Your task to perform on an android device: Open sound settings Image 0: 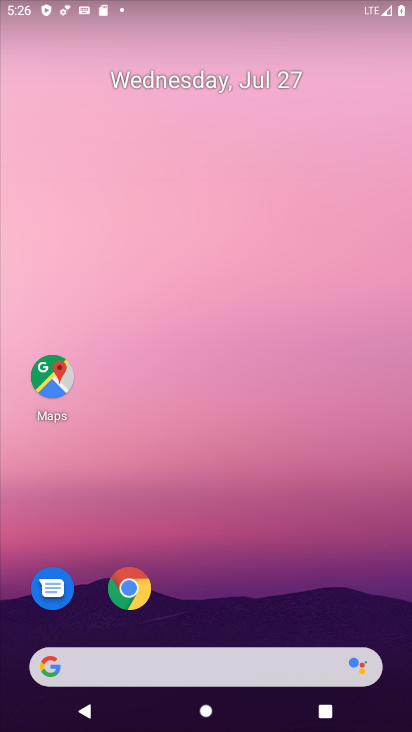
Step 0: drag from (312, 653) to (365, 7)
Your task to perform on an android device: Open sound settings Image 1: 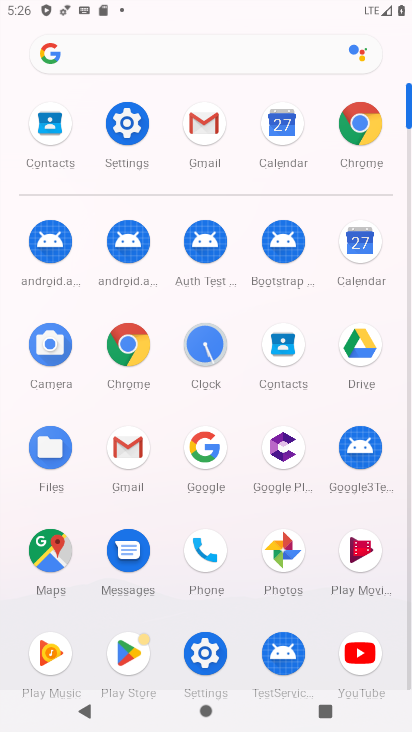
Step 1: click (129, 109)
Your task to perform on an android device: Open sound settings Image 2: 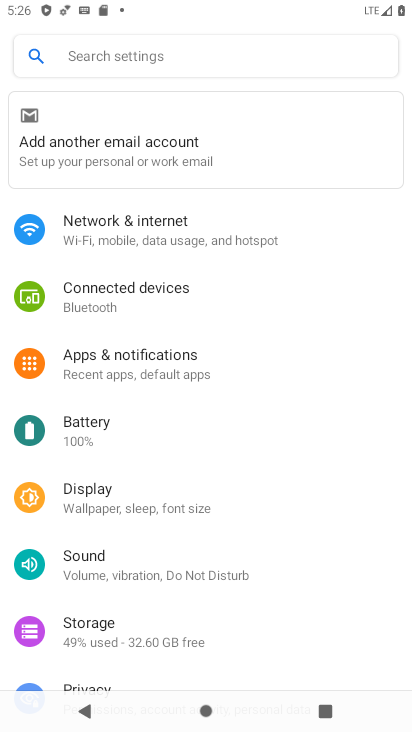
Step 2: click (110, 565)
Your task to perform on an android device: Open sound settings Image 3: 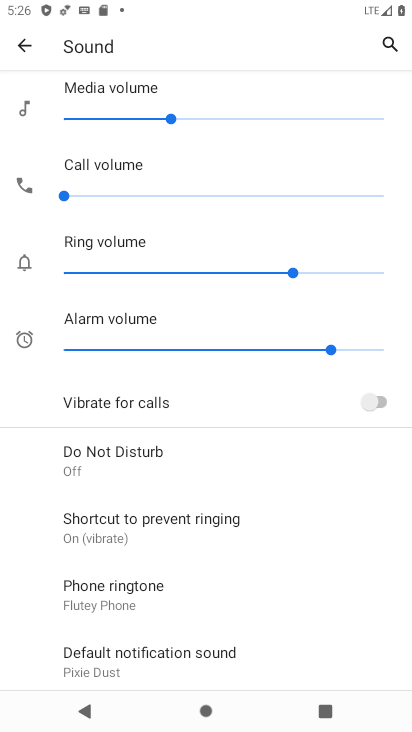
Step 3: task complete